Your task to perform on an android device: choose inbox layout in the gmail app Image 0: 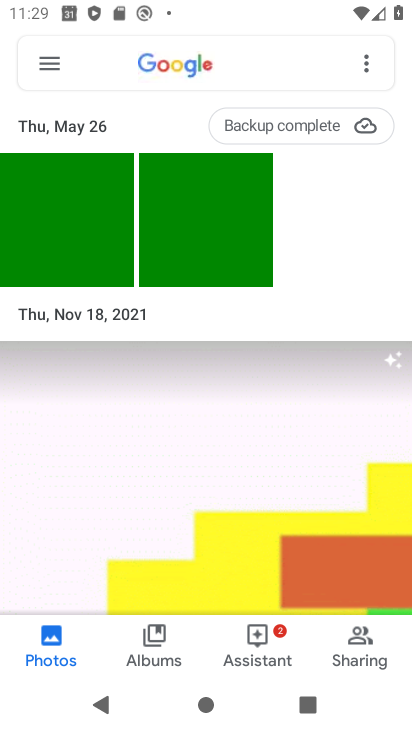
Step 0: press back button
Your task to perform on an android device: choose inbox layout in the gmail app Image 1: 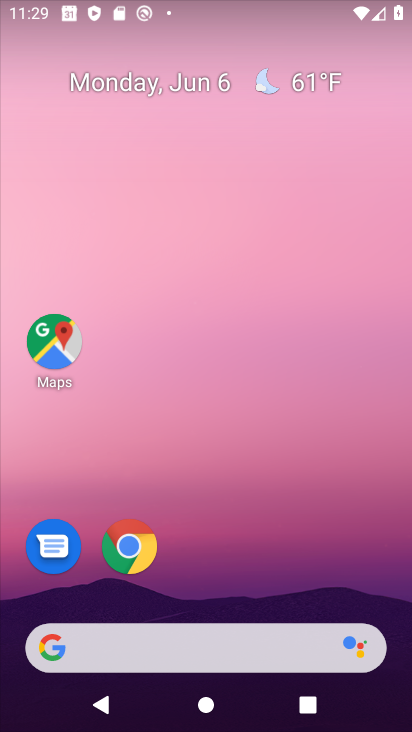
Step 1: drag from (260, 610) to (338, 40)
Your task to perform on an android device: choose inbox layout in the gmail app Image 2: 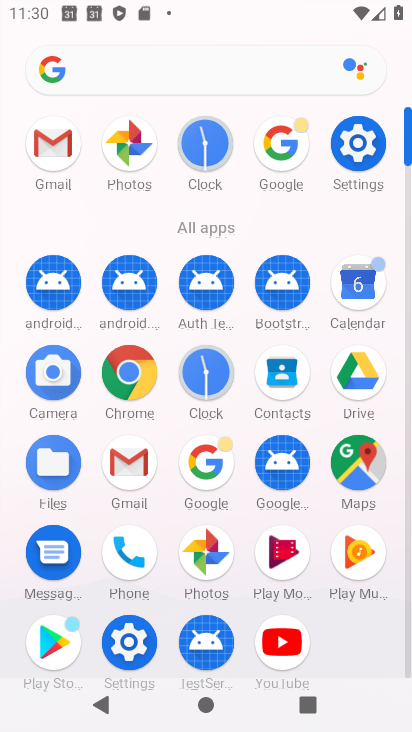
Step 2: click (107, 463)
Your task to perform on an android device: choose inbox layout in the gmail app Image 3: 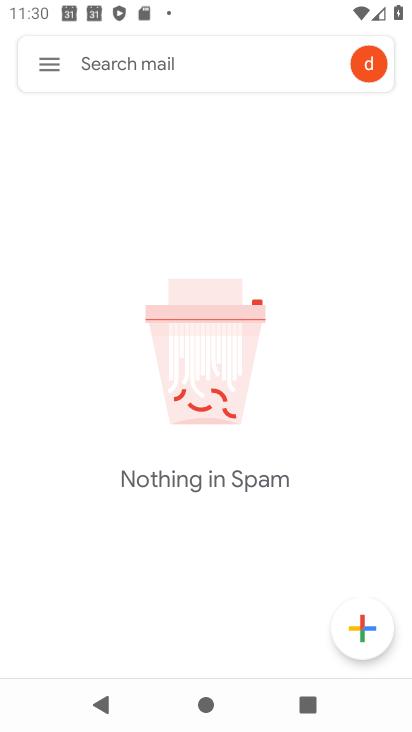
Step 3: click (40, 68)
Your task to perform on an android device: choose inbox layout in the gmail app Image 4: 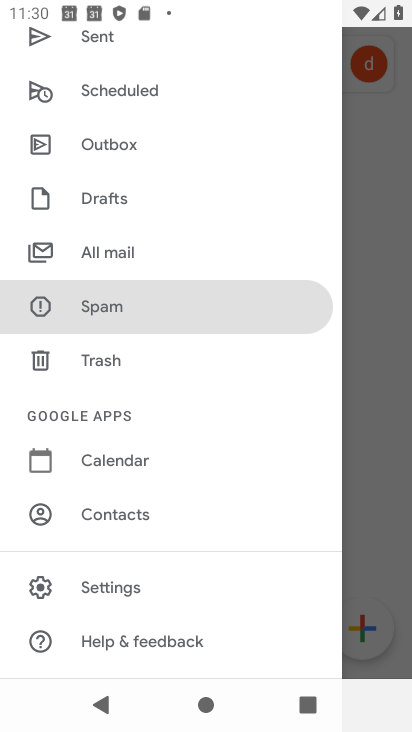
Step 4: click (130, 580)
Your task to perform on an android device: choose inbox layout in the gmail app Image 5: 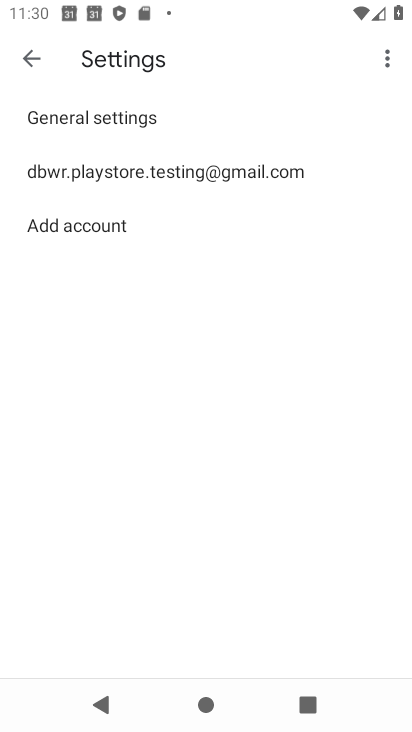
Step 5: click (122, 181)
Your task to perform on an android device: choose inbox layout in the gmail app Image 6: 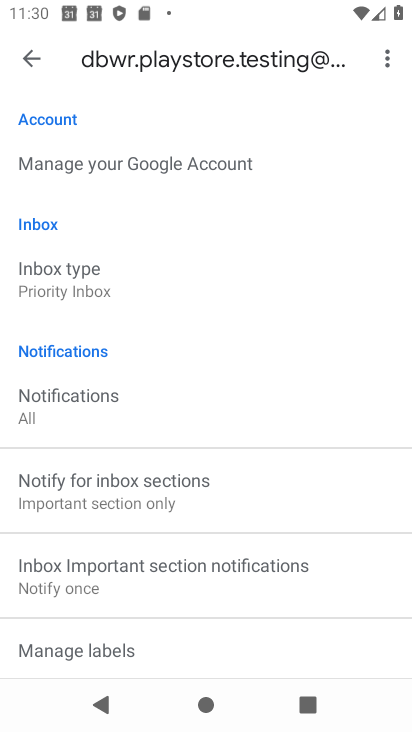
Step 6: click (85, 287)
Your task to perform on an android device: choose inbox layout in the gmail app Image 7: 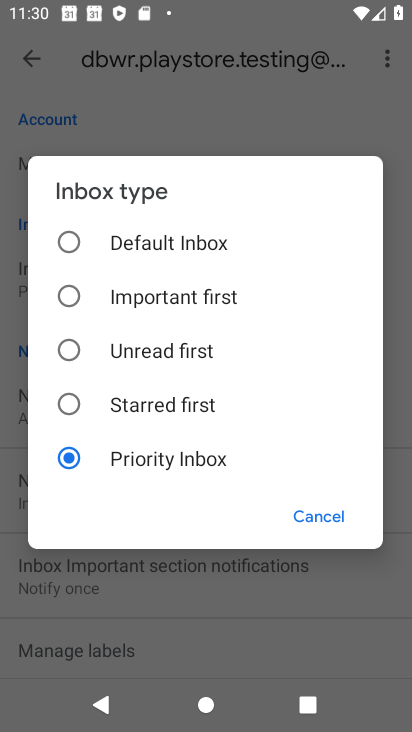
Step 7: click (63, 242)
Your task to perform on an android device: choose inbox layout in the gmail app Image 8: 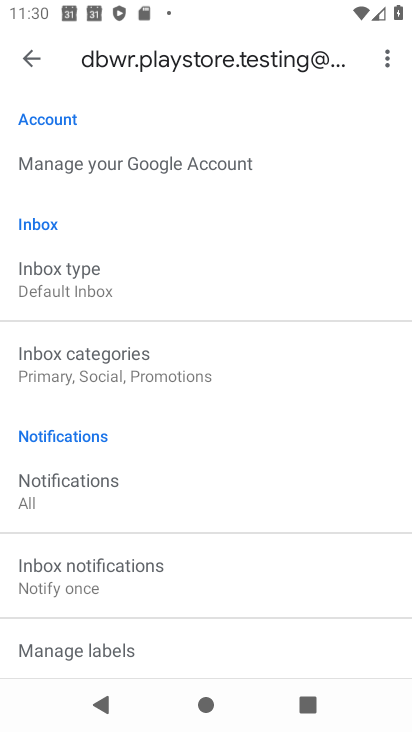
Step 8: task complete